Your task to perform on an android device: What's the weather going to be this weekend? Image 0: 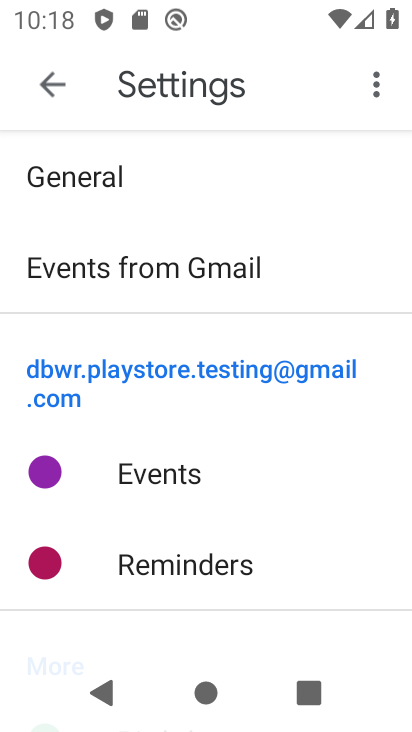
Step 0: press back button
Your task to perform on an android device: What's the weather going to be this weekend? Image 1: 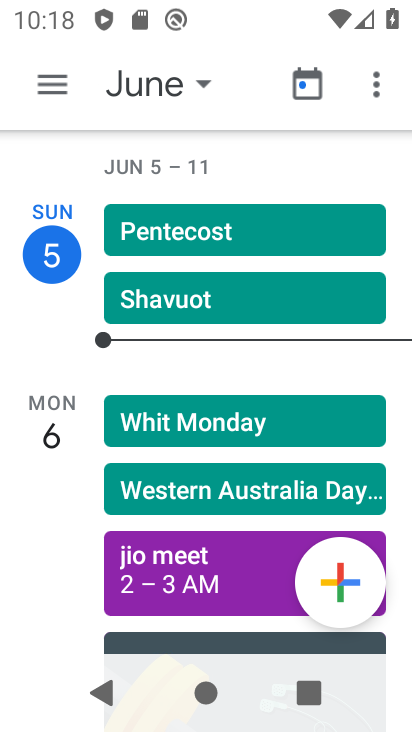
Step 1: press back button
Your task to perform on an android device: What's the weather going to be this weekend? Image 2: 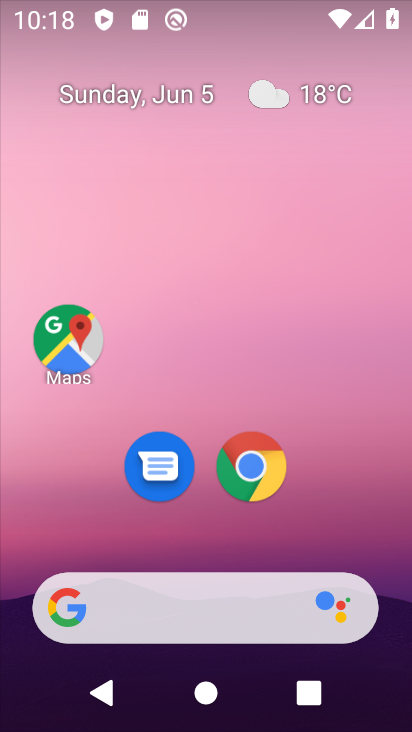
Step 2: drag from (326, 529) to (199, 108)
Your task to perform on an android device: What's the weather going to be this weekend? Image 3: 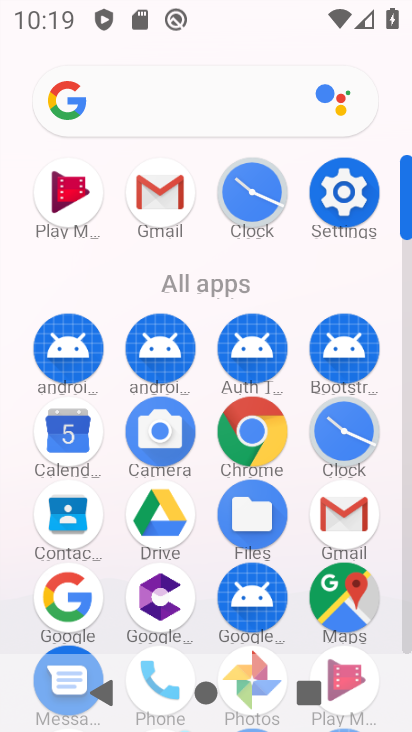
Step 3: drag from (296, 298) to (292, 120)
Your task to perform on an android device: What's the weather going to be this weekend? Image 4: 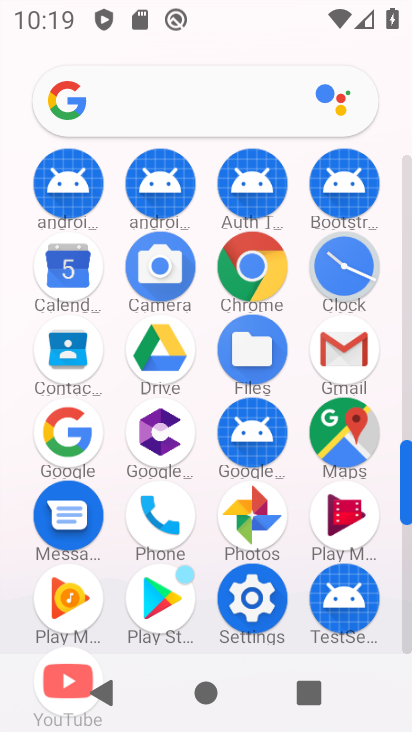
Step 4: click (63, 435)
Your task to perform on an android device: What's the weather going to be this weekend? Image 5: 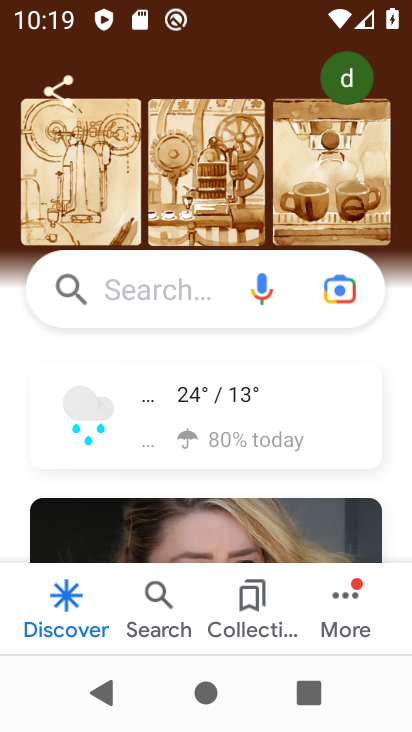
Step 5: click (199, 425)
Your task to perform on an android device: What's the weather going to be this weekend? Image 6: 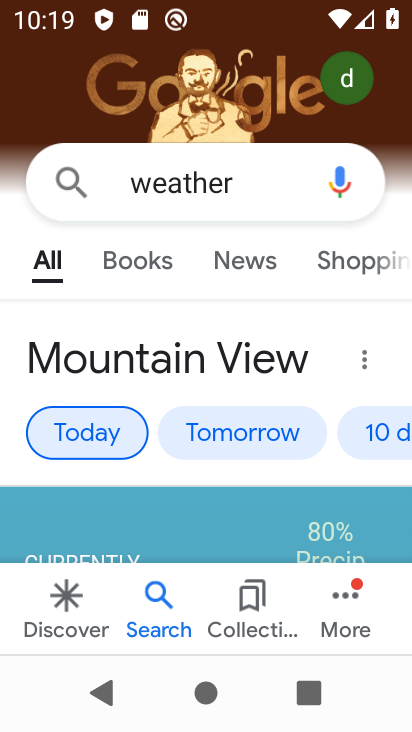
Step 6: click (387, 436)
Your task to perform on an android device: What's the weather going to be this weekend? Image 7: 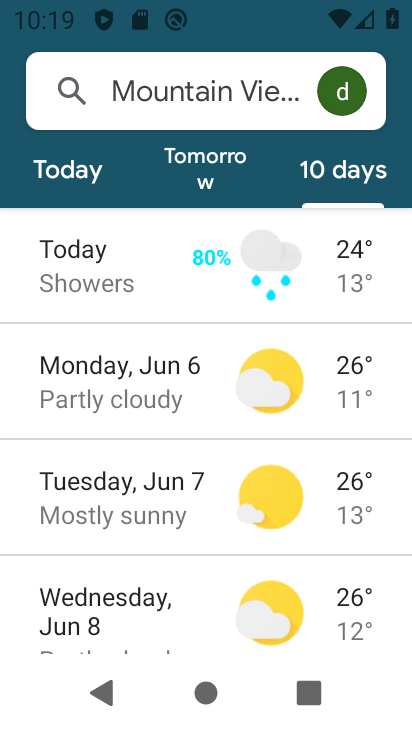
Step 7: task complete